Your task to perform on an android device: turn notification dots on Image 0: 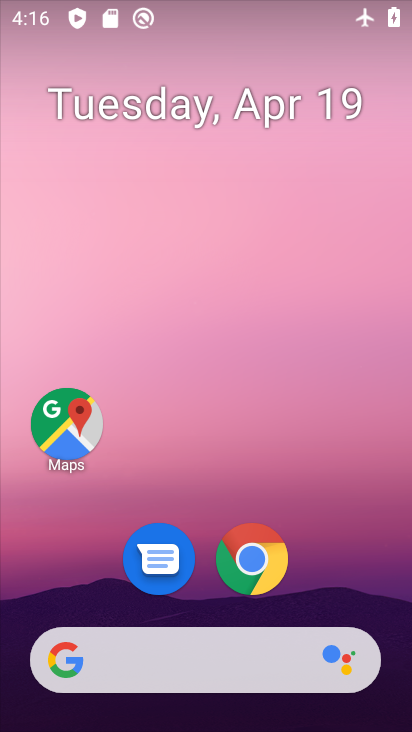
Step 0: drag from (330, 578) to (242, 0)
Your task to perform on an android device: turn notification dots on Image 1: 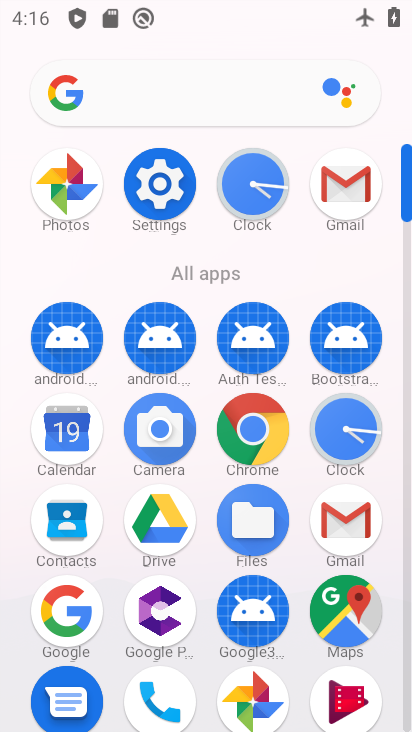
Step 1: click (171, 192)
Your task to perform on an android device: turn notification dots on Image 2: 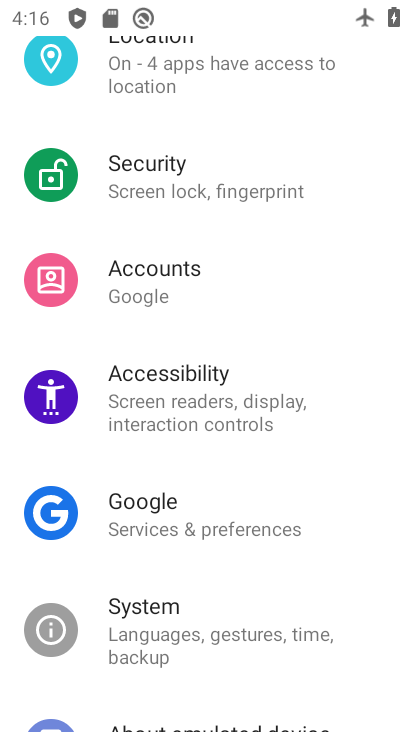
Step 2: drag from (241, 474) to (174, 253)
Your task to perform on an android device: turn notification dots on Image 3: 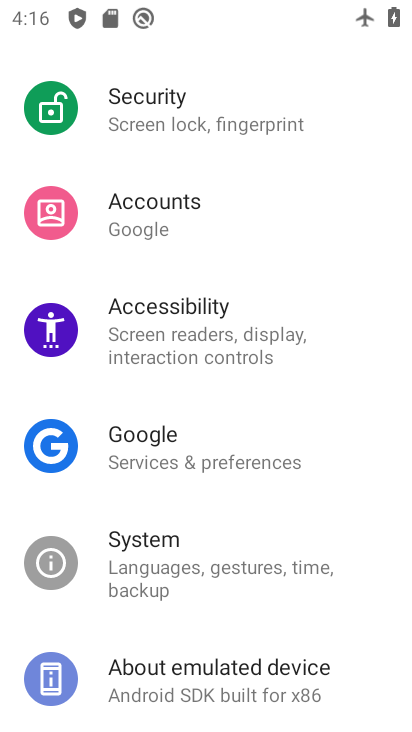
Step 3: drag from (175, 255) to (250, 621)
Your task to perform on an android device: turn notification dots on Image 4: 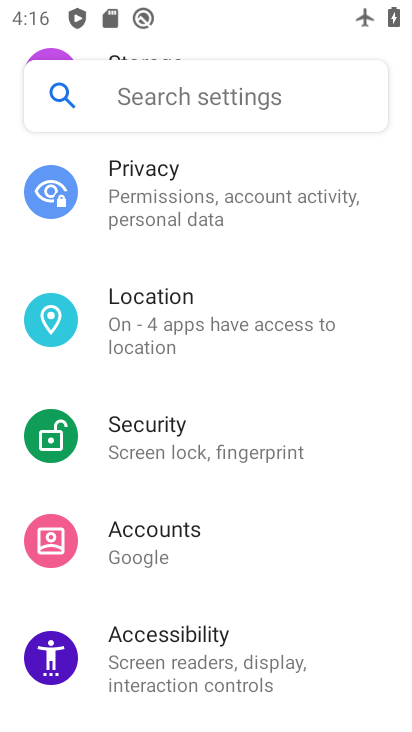
Step 4: drag from (202, 271) to (238, 713)
Your task to perform on an android device: turn notification dots on Image 5: 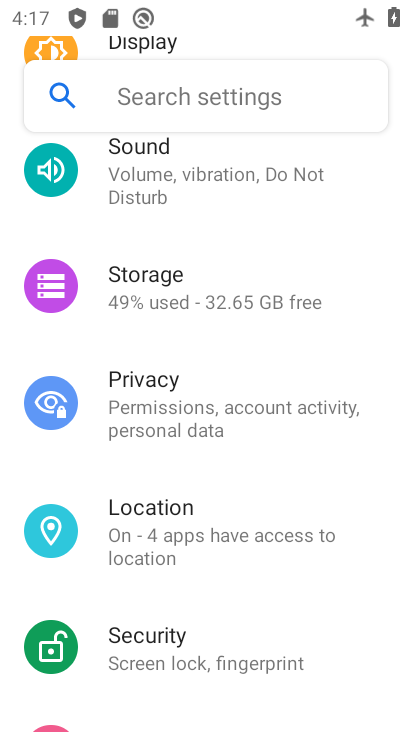
Step 5: drag from (203, 255) to (246, 619)
Your task to perform on an android device: turn notification dots on Image 6: 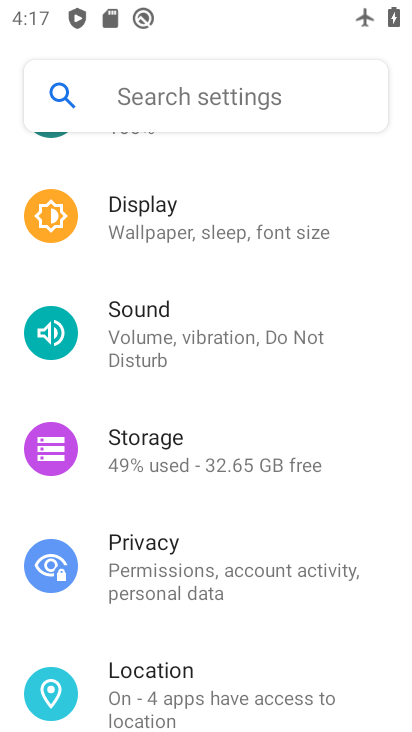
Step 6: drag from (161, 177) to (215, 606)
Your task to perform on an android device: turn notification dots on Image 7: 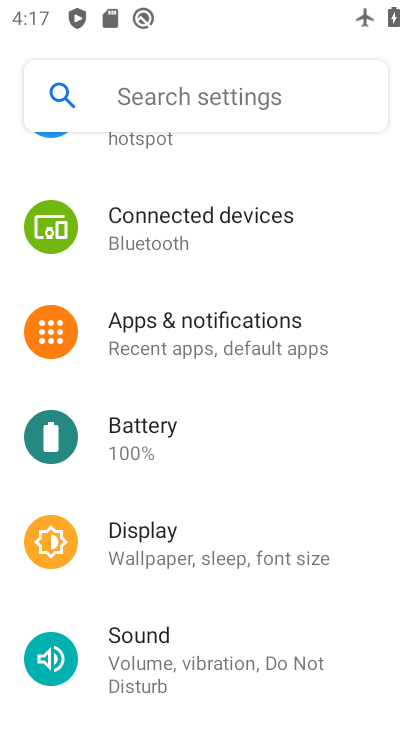
Step 7: click (187, 243)
Your task to perform on an android device: turn notification dots on Image 8: 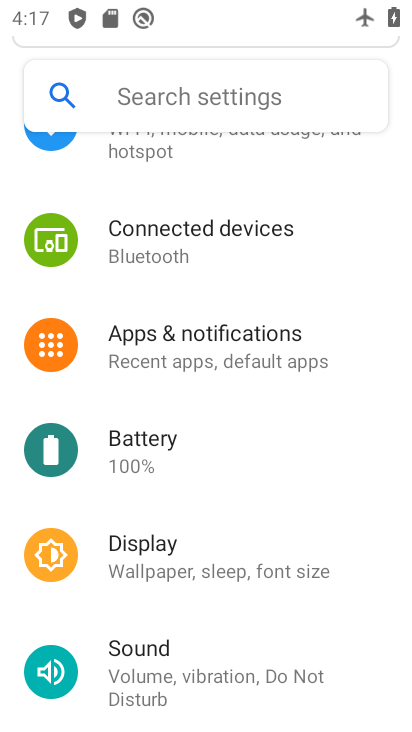
Step 8: click (195, 329)
Your task to perform on an android device: turn notification dots on Image 9: 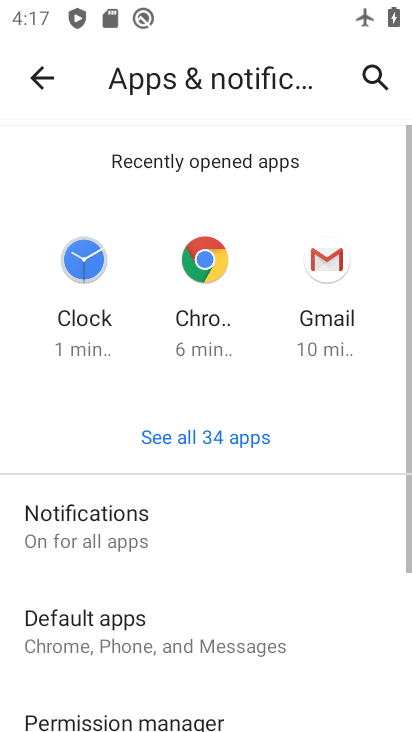
Step 9: click (247, 538)
Your task to perform on an android device: turn notification dots on Image 10: 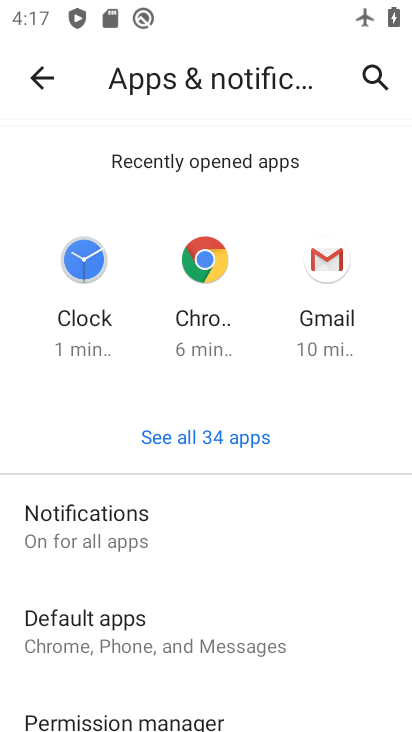
Step 10: drag from (247, 538) to (220, 271)
Your task to perform on an android device: turn notification dots on Image 11: 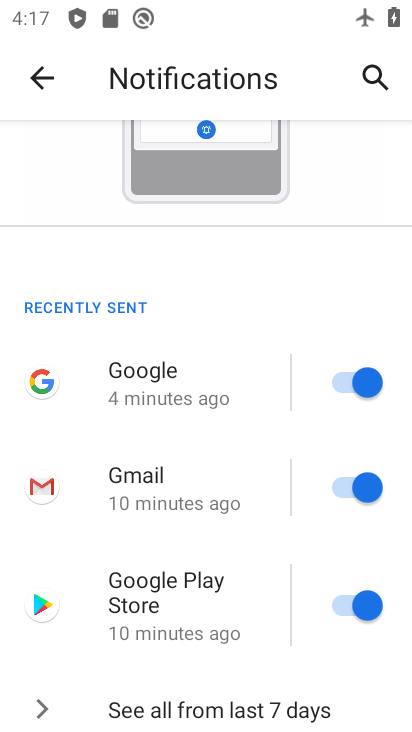
Step 11: drag from (246, 581) to (225, 331)
Your task to perform on an android device: turn notification dots on Image 12: 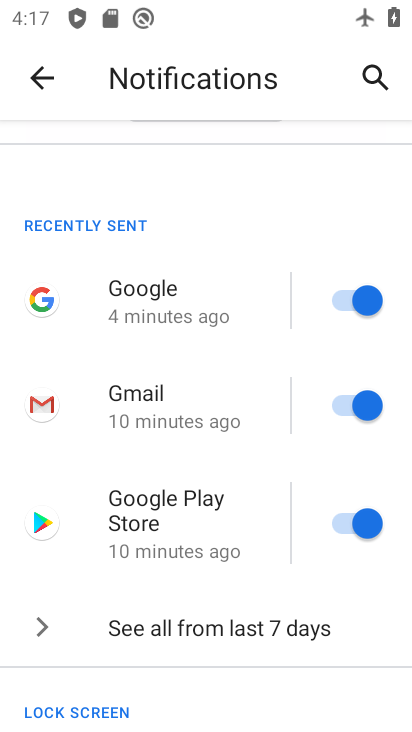
Step 12: drag from (225, 506) to (207, 156)
Your task to perform on an android device: turn notification dots on Image 13: 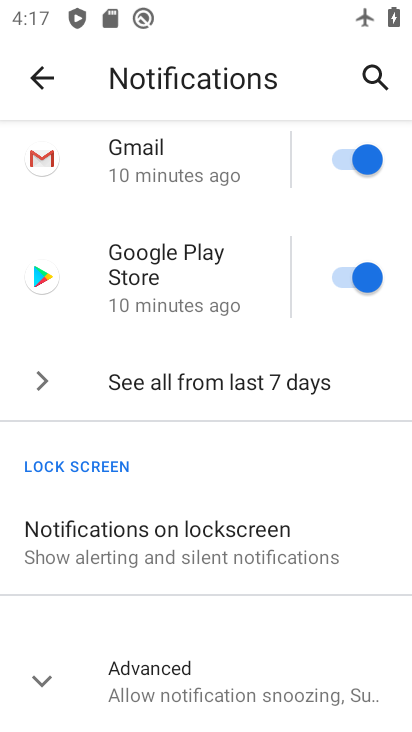
Step 13: drag from (158, 494) to (162, 257)
Your task to perform on an android device: turn notification dots on Image 14: 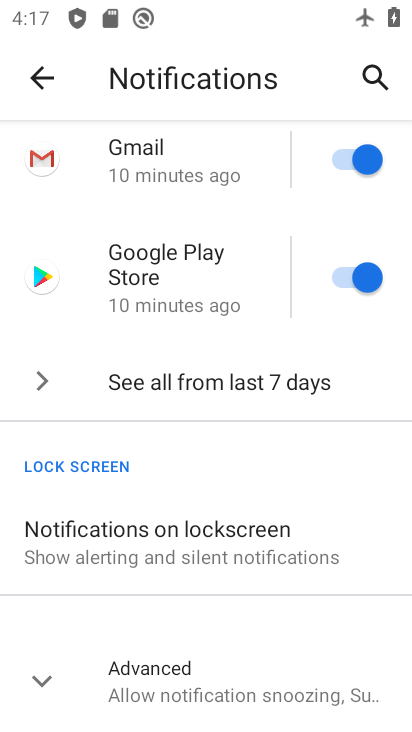
Step 14: click (173, 698)
Your task to perform on an android device: turn notification dots on Image 15: 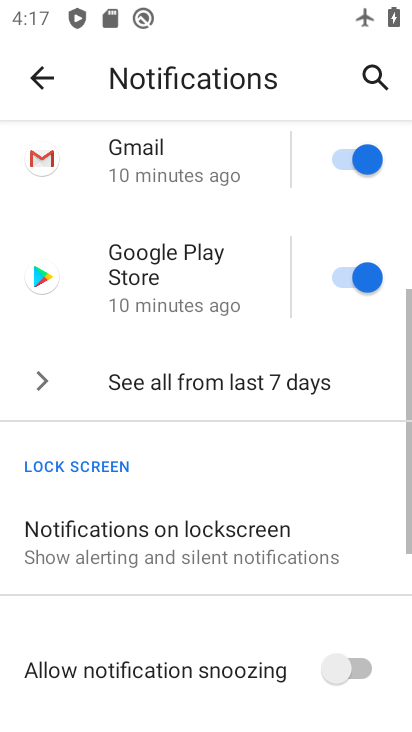
Step 15: drag from (173, 698) to (146, 471)
Your task to perform on an android device: turn notification dots on Image 16: 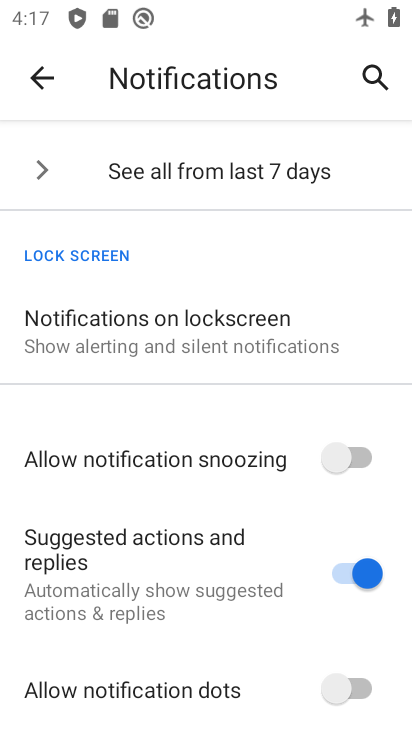
Step 16: click (199, 698)
Your task to perform on an android device: turn notification dots on Image 17: 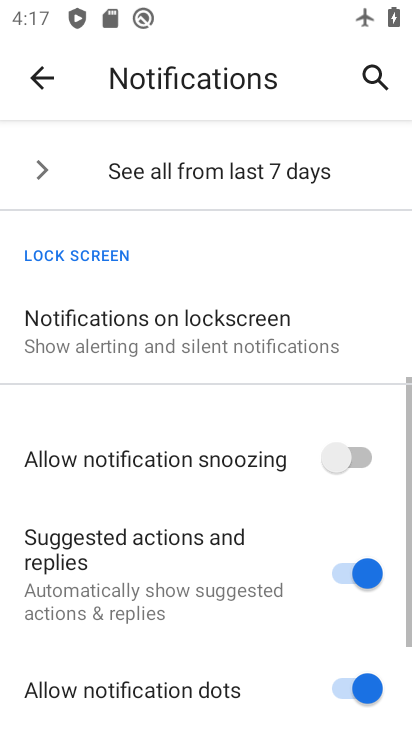
Step 17: task complete